Your task to perform on an android device: toggle airplane mode Image 0: 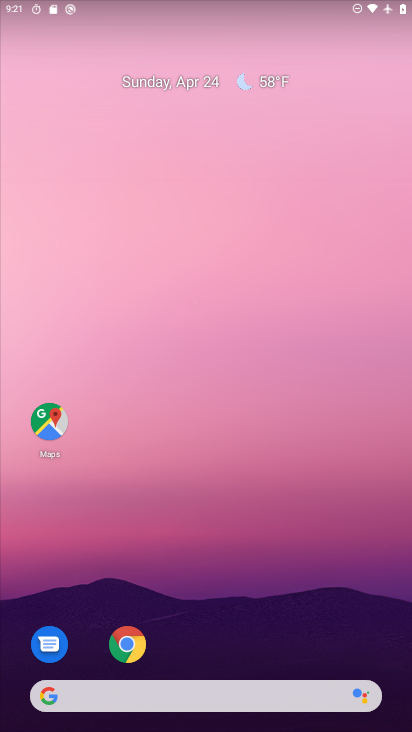
Step 0: drag from (226, 6) to (245, 632)
Your task to perform on an android device: toggle airplane mode Image 1: 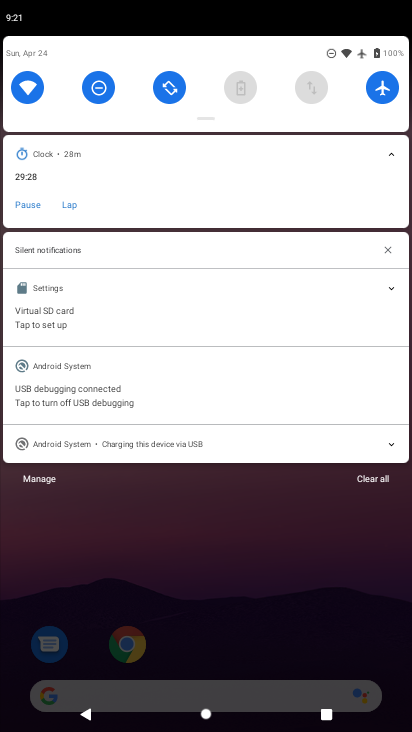
Step 1: click (378, 82)
Your task to perform on an android device: toggle airplane mode Image 2: 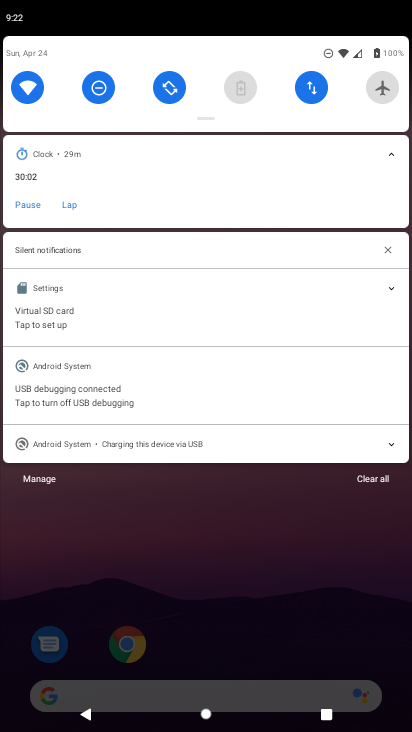
Step 2: task complete